Your task to perform on an android device: turn pop-ups on in chrome Image 0: 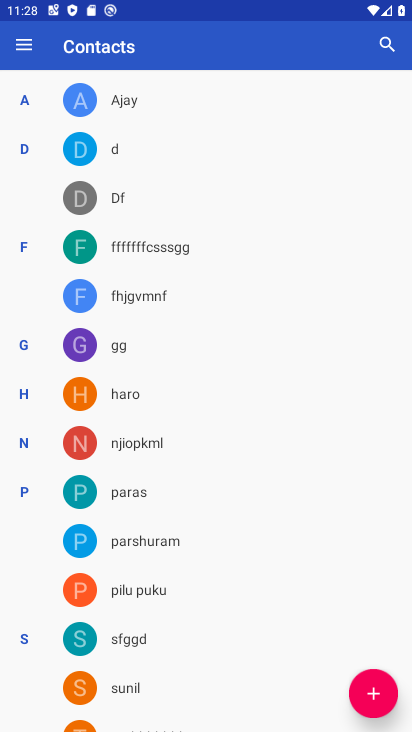
Step 0: press home button
Your task to perform on an android device: turn pop-ups on in chrome Image 1: 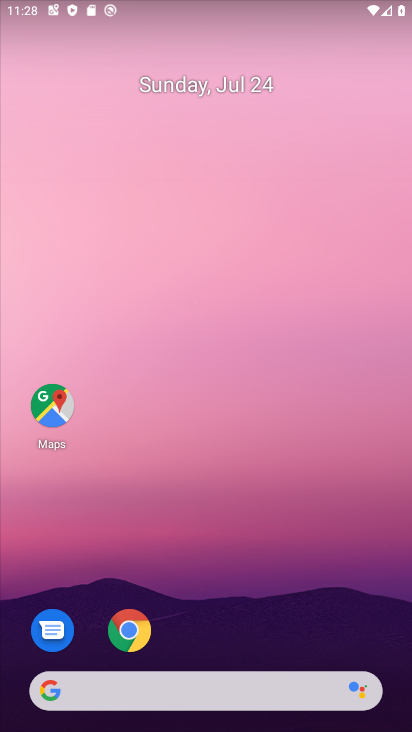
Step 1: click (122, 636)
Your task to perform on an android device: turn pop-ups on in chrome Image 2: 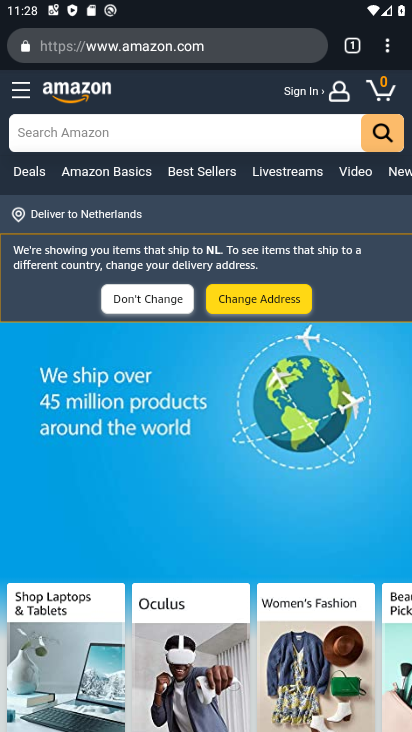
Step 2: click (387, 47)
Your task to perform on an android device: turn pop-ups on in chrome Image 3: 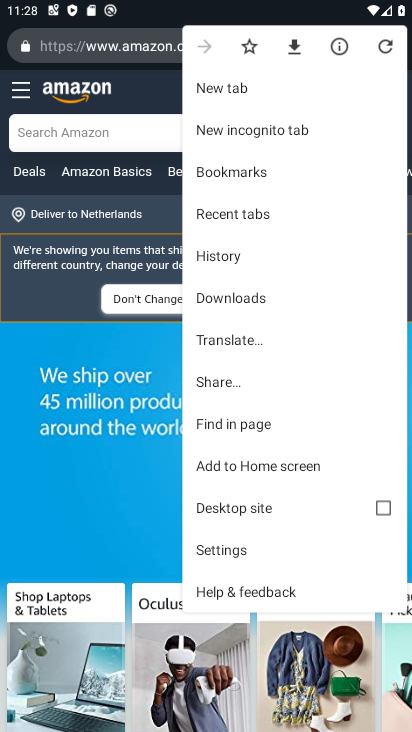
Step 3: click (234, 548)
Your task to perform on an android device: turn pop-ups on in chrome Image 4: 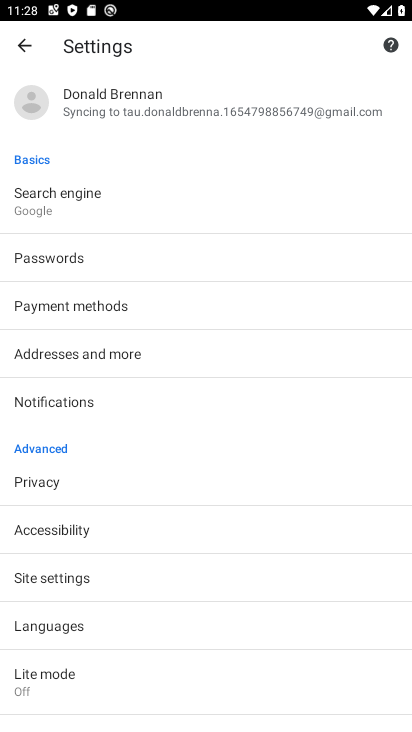
Step 4: click (50, 578)
Your task to perform on an android device: turn pop-ups on in chrome Image 5: 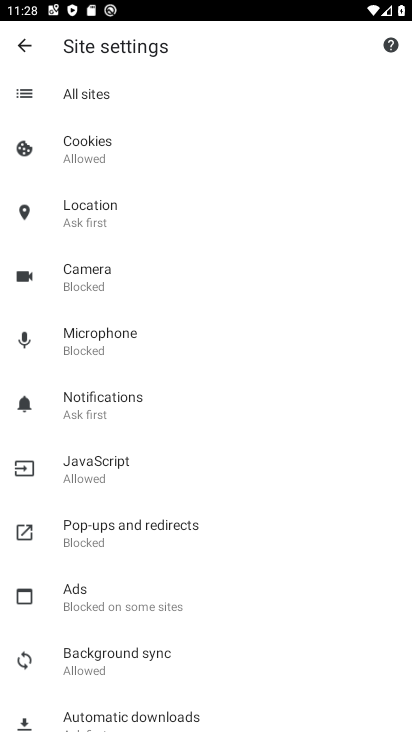
Step 5: click (85, 545)
Your task to perform on an android device: turn pop-ups on in chrome Image 6: 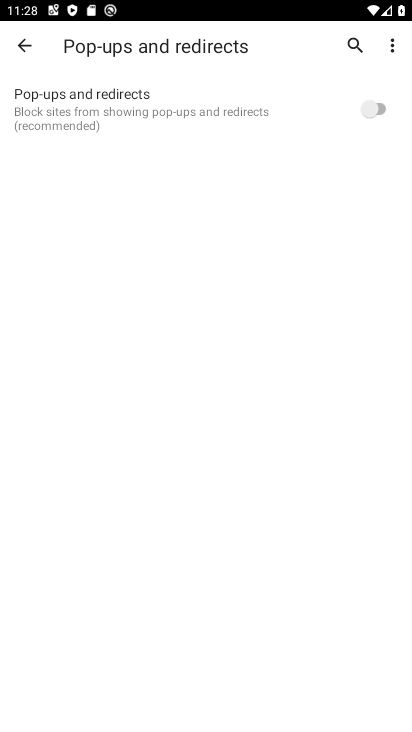
Step 6: click (380, 108)
Your task to perform on an android device: turn pop-ups on in chrome Image 7: 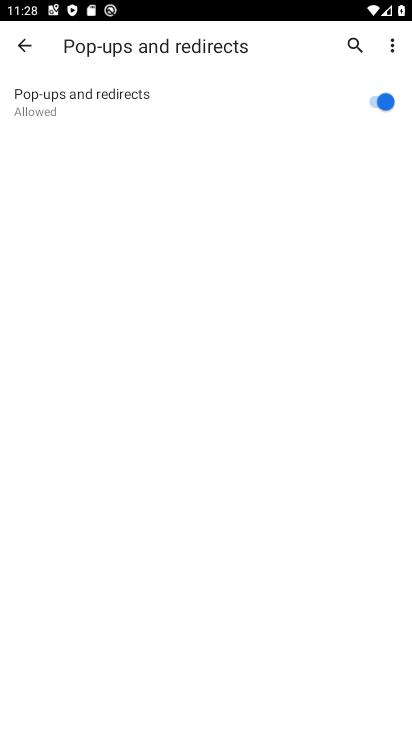
Step 7: task complete